Your task to perform on an android device: Search for seafood restaurants on Google Maps Image 0: 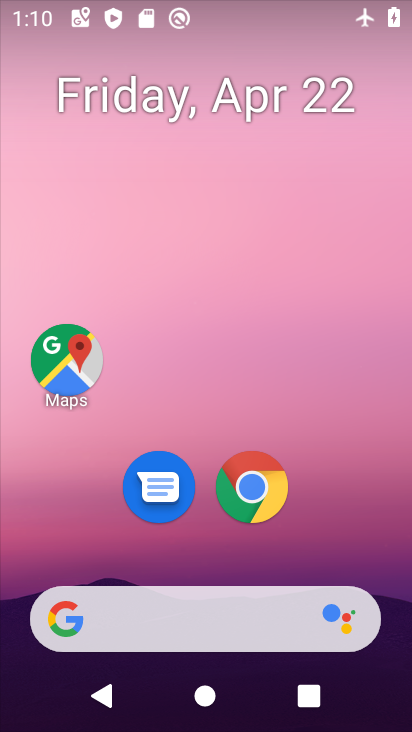
Step 0: click (70, 365)
Your task to perform on an android device: Search for seafood restaurants on Google Maps Image 1: 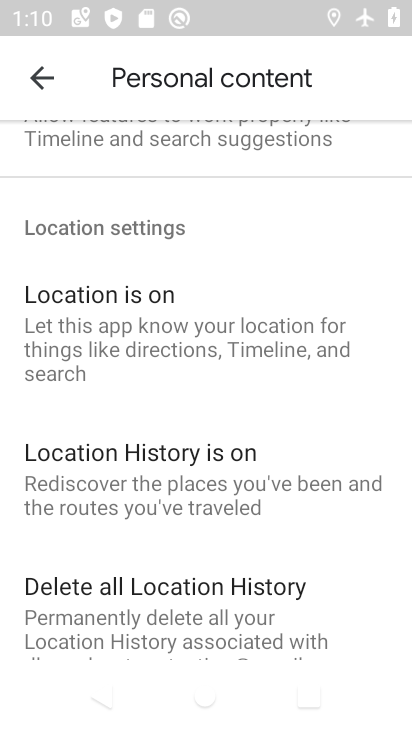
Step 1: press back button
Your task to perform on an android device: Search for seafood restaurants on Google Maps Image 2: 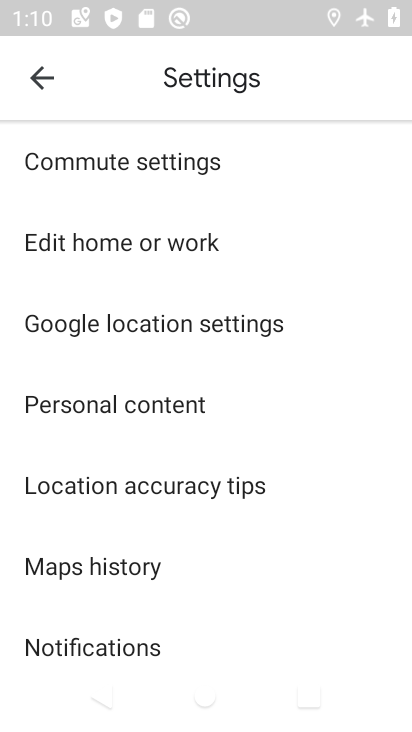
Step 2: press back button
Your task to perform on an android device: Search for seafood restaurants on Google Maps Image 3: 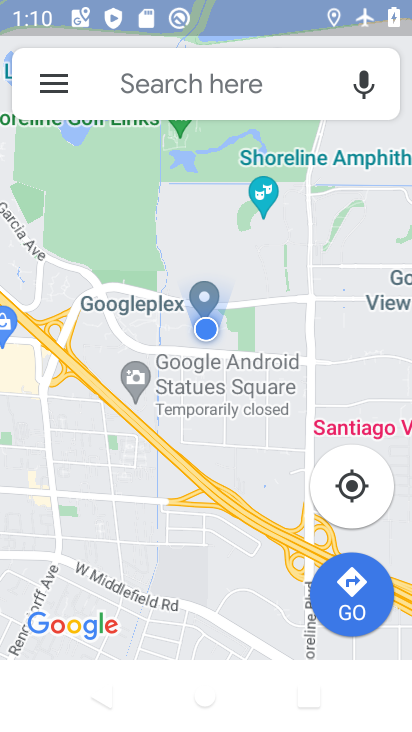
Step 3: click (260, 96)
Your task to perform on an android device: Search for seafood restaurants on Google Maps Image 4: 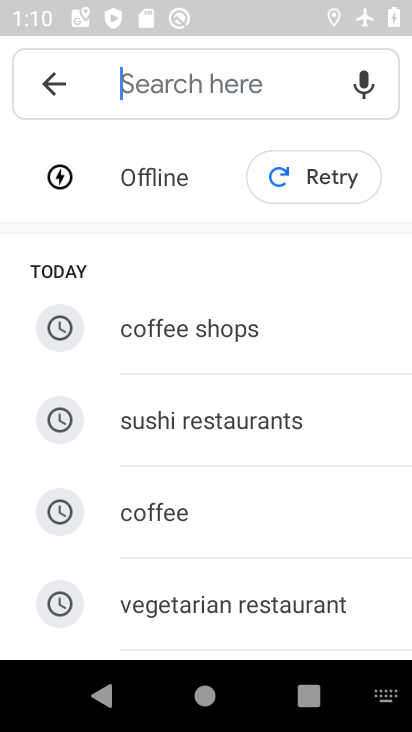
Step 4: type "seafood restaurants"
Your task to perform on an android device: Search for seafood restaurants on Google Maps Image 5: 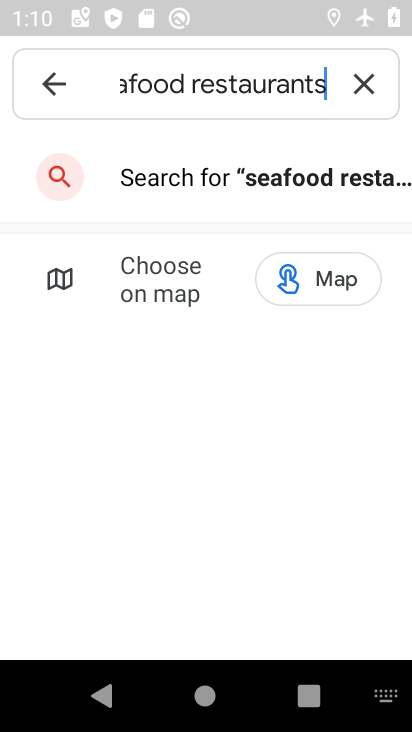
Step 5: type ""
Your task to perform on an android device: Search for seafood restaurants on Google Maps Image 6: 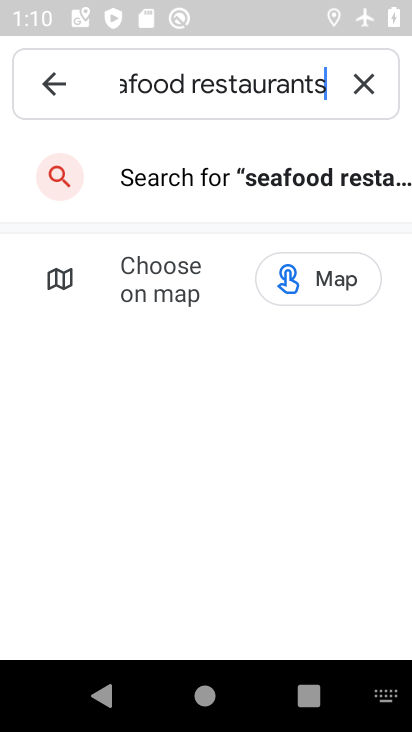
Step 6: task complete